Your task to perform on an android device: Empty the shopping cart on amazon. Search for "logitech g933" on amazon, select the first entry, add it to the cart, then select checkout. Image 0: 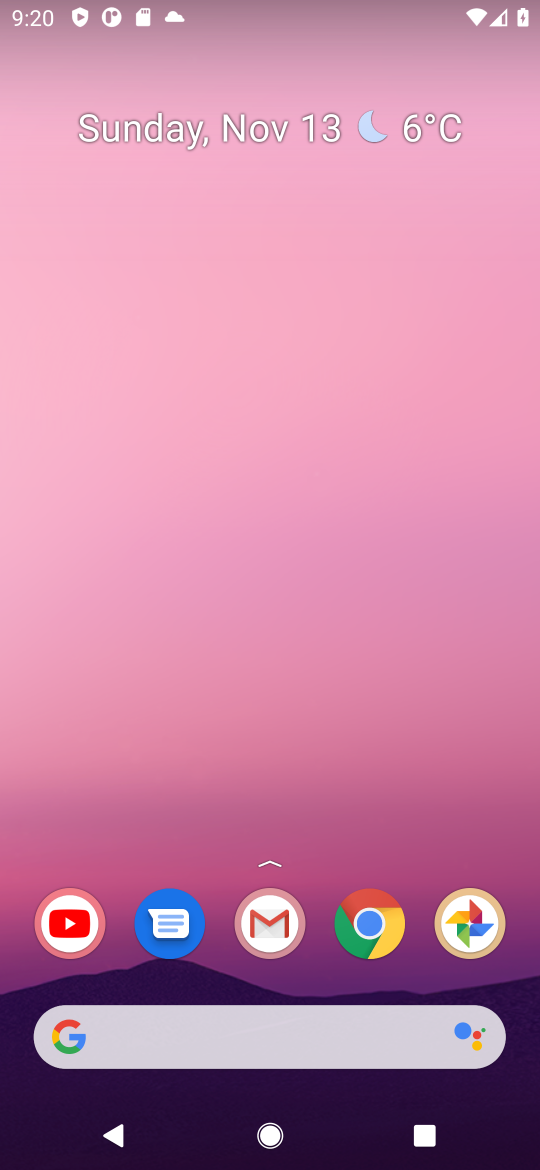
Step 0: click (375, 922)
Your task to perform on an android device: Empty the shopping cart on amazon. Search for "logitech g933" on amazon, select the first entry, add it to the cart, then select checkout. Image 1: 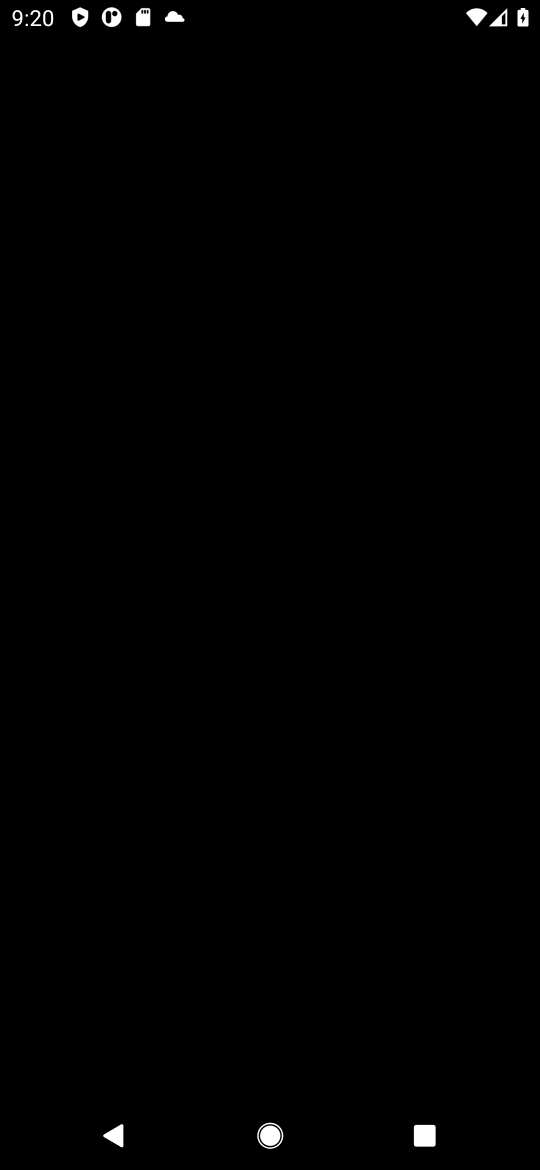
Step 1: click (373, 929)
Your task to perform on an android device: Empty the shopping cart on amazon. Search for "logitech g933" on amazon, select the first entry, add it to the cart, then select checkout. Image 2: 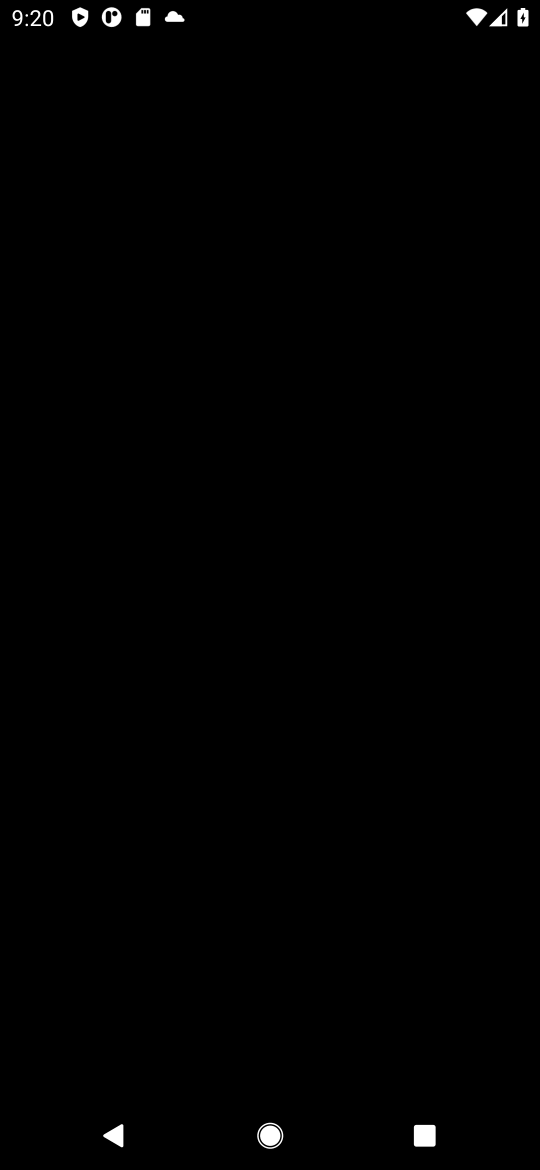
Step 2: press home button
Your task to perform on an android device: Empty the shopping cart on amazon. Search for "logitech g933" on amazon, select the first entry, add it to the cart, then select checkout. Image 3: 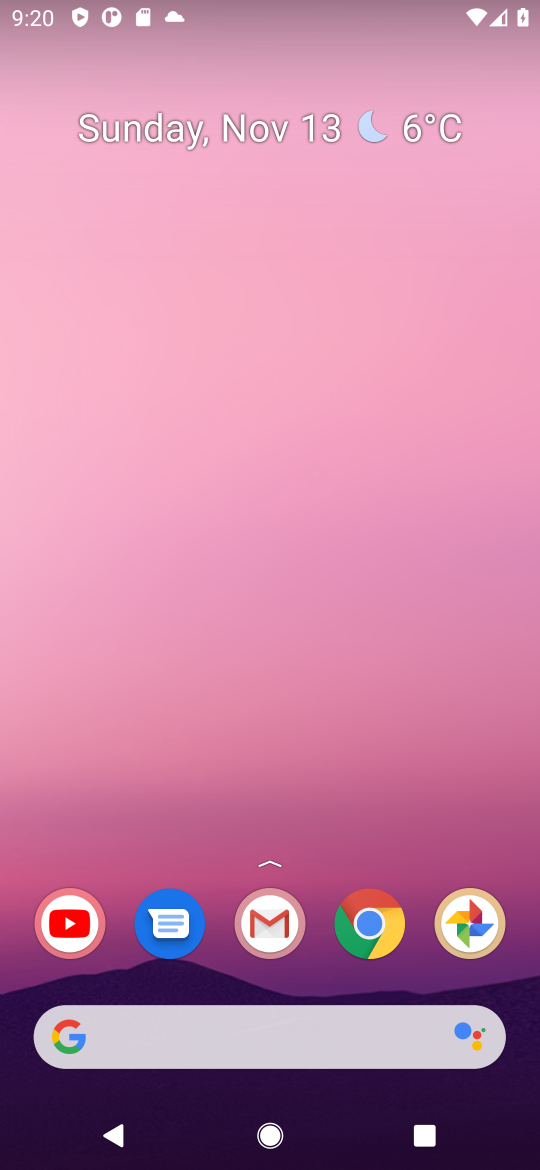
Step 3: click (391, 930)
Your task to perform on an android device: Empty the shopping cart on amazon. Search for "logitech g933" on amazon, select the first entry, add it to the cart, then select checkout. Image 4: 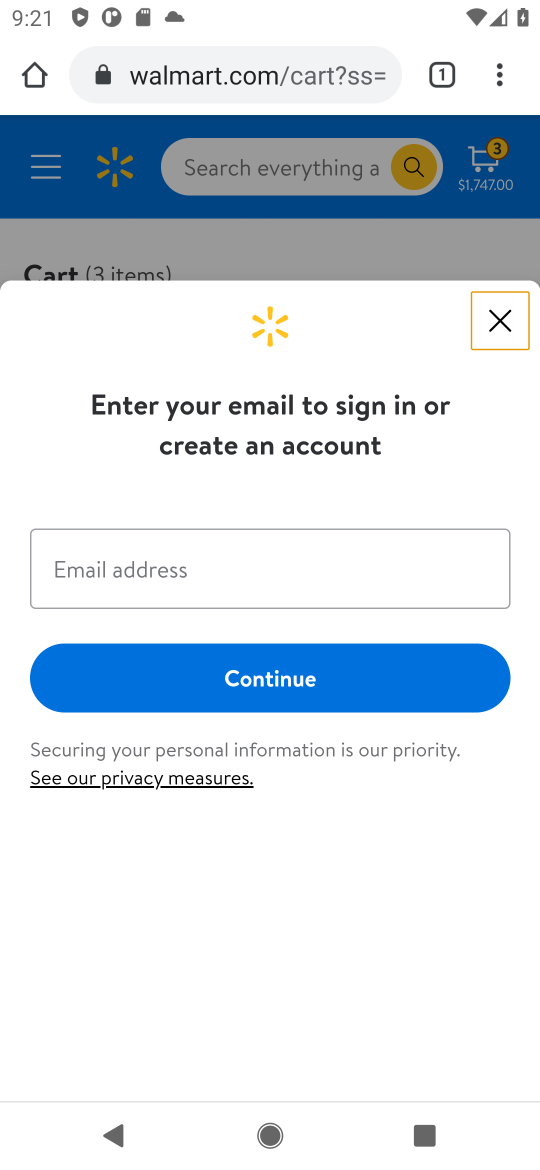
Step 4: click (506, 319)
Your task to perform on an android device: Empty the shopping cart on amazon. Search for "logitech g933" on amazon, select the first entry, add it to the cart, then select checkout. Image 5: 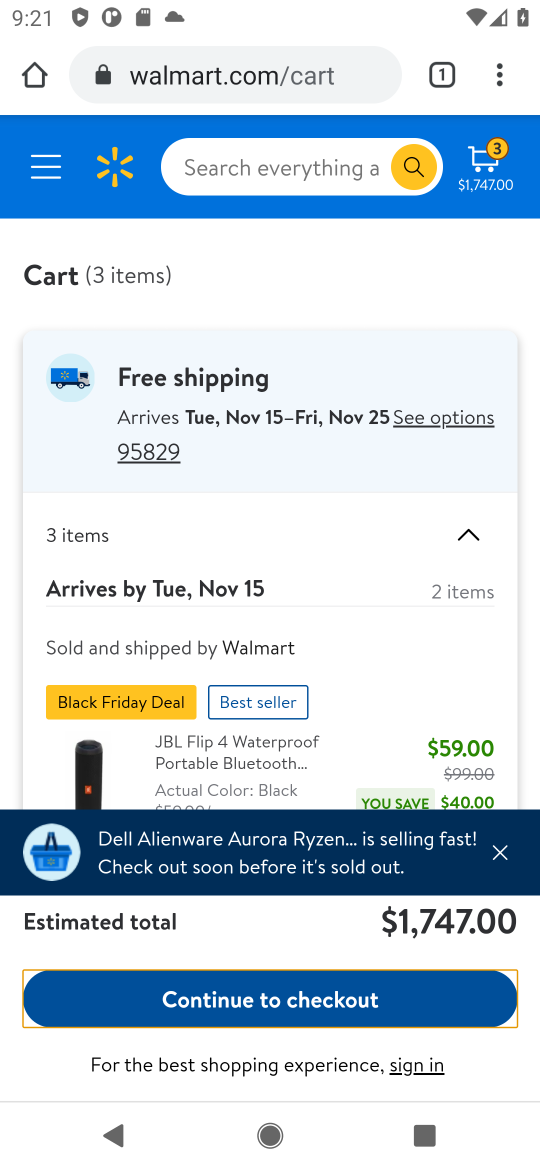
Step 5: click (239, 56)
Your task to perform on an android device: Empty the shopping cart on amazon. Search for "logitech g933" on amazon, select the first entry, add it to the cart, then select checkout. Image 6: 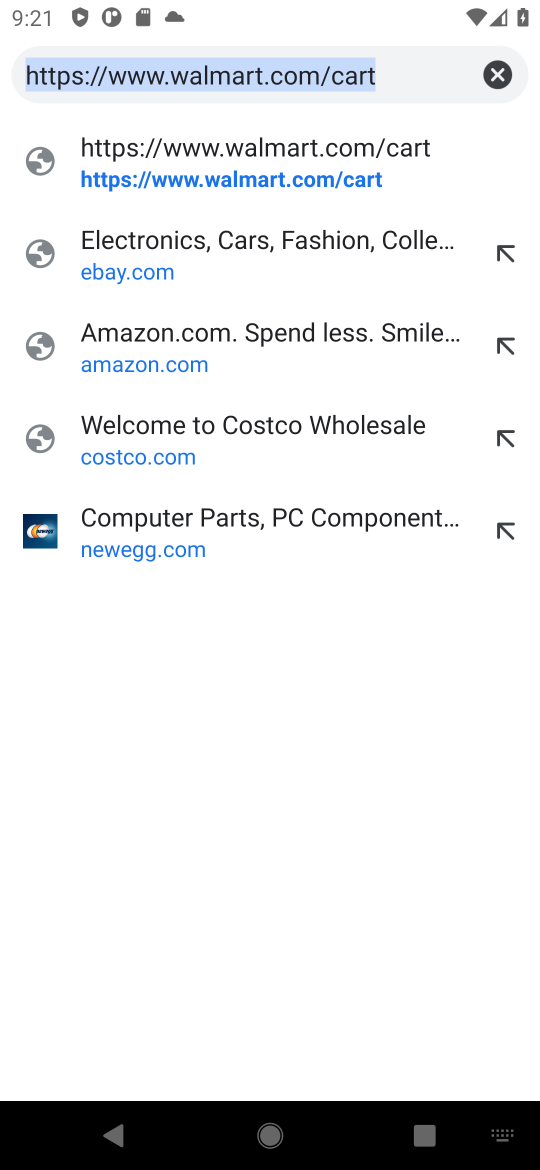
Step 6: click (239, 56)
Your task to perform on an android device: Empty the shopping cart on amazon. Search for "logitech g933" on amazon, select the first entry, add it to the cart, then select checkout. Image 7: 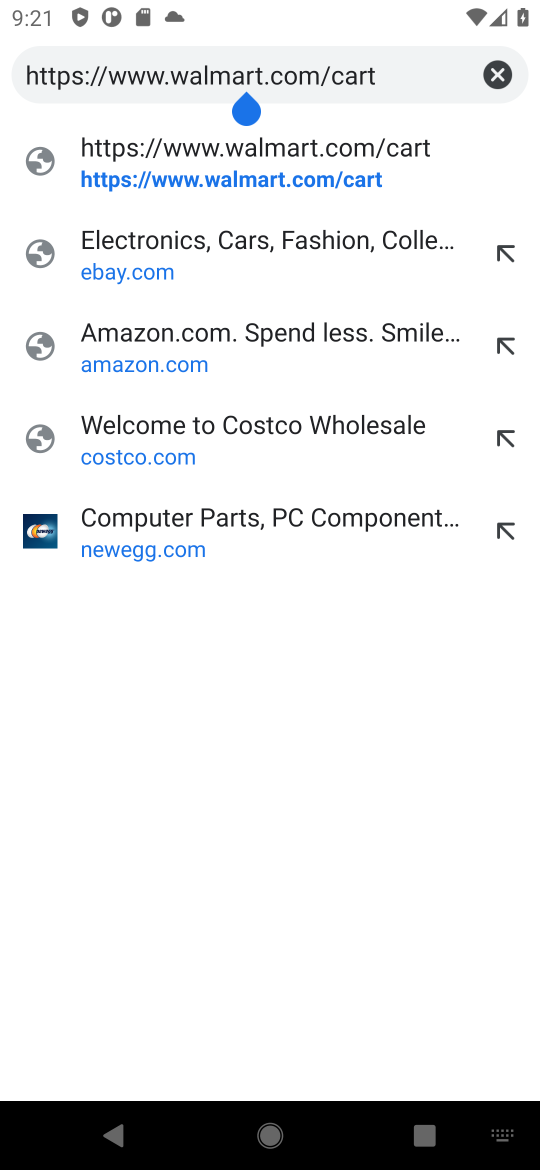
Step 7: click (219, 327)
Your task to perform on an android device: Empty the shopping cart on amazon. Search for "logitech g933" on amazon, select the first entry, add it to the cart, then select checkout. Image 8: 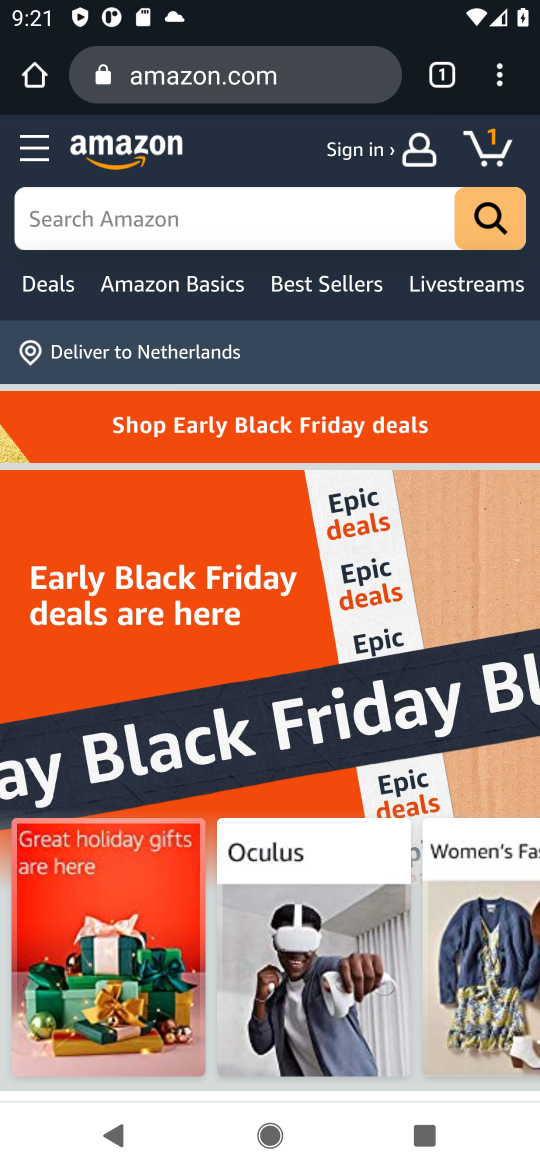
Step 8: click (486, 153)
Your task to perform on an android device: Empty the shopping cart on amazon. Search for "logitech g933" on amazon, select the first entry, add it to the cart, then select checkout. Image 9: 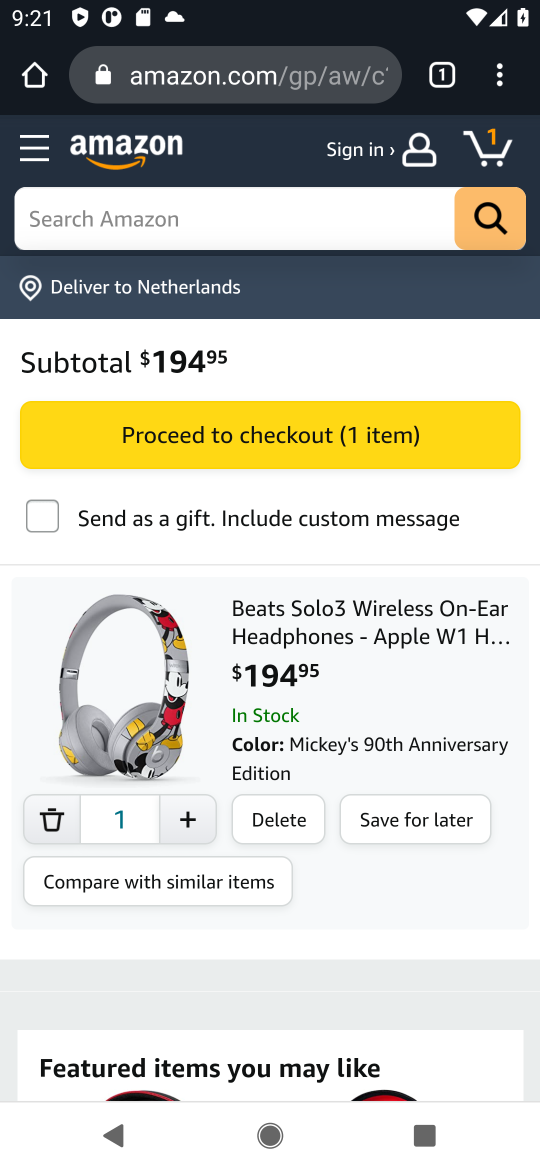
Step 9: click (283, 819)
Your task to perform on an android device: Empty the shopping cart on amazon. Search for "logitech g933" on amazon, select the first entry, add it to the cart, then select checkout. Image 10: 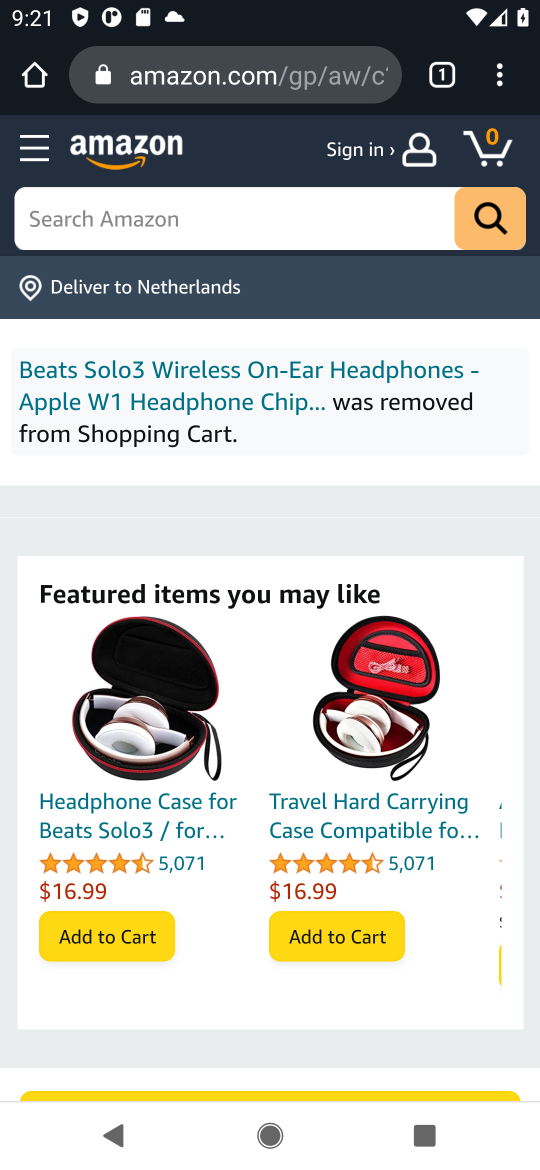
Step 10: click (328, 222)
Your task to perform on an android device: Empty the shopping cart on amazon. Search for "logitech g933" on amazon, select the first entry, add it to the cart, then select checkout. Image 11: 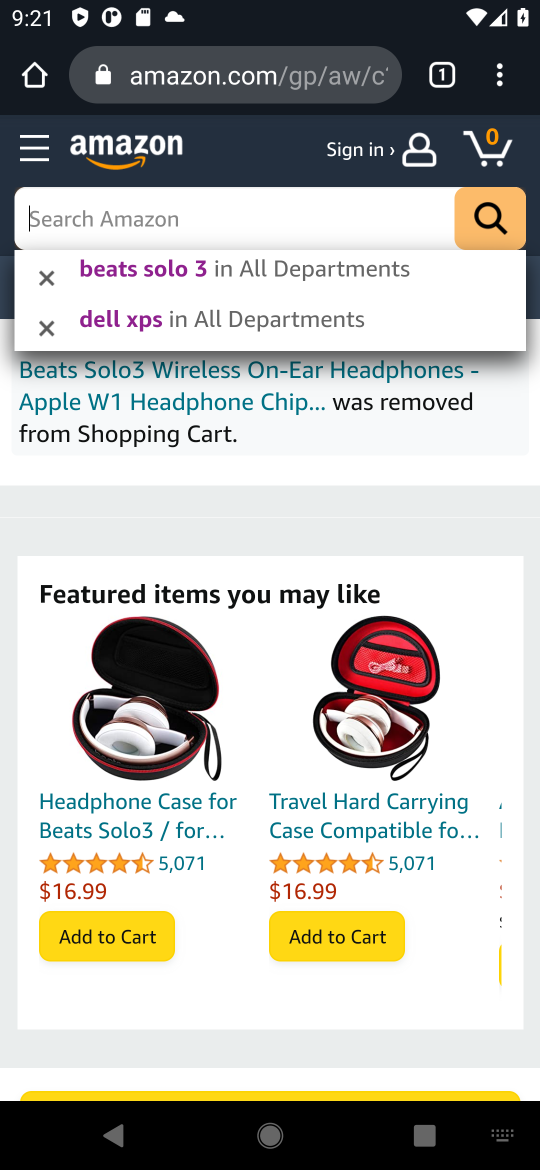
Step 11: press enter
Your task to perform on an android device: Empty the shopping cart on amazon. Search for "logitech g933" on amazon, select the first entry, add it to the cart, then select checkout. Image 12: 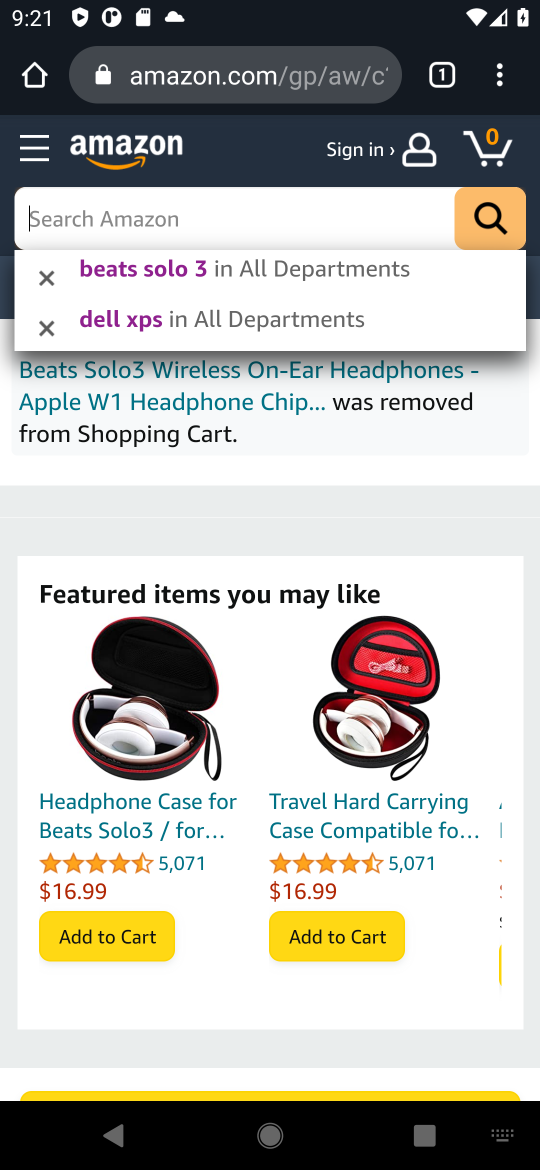
Step 12: type "logitech g933"
Your task to perform on an android device: Empty the shopping cart on amazon. Search for "logitech g933" on amazon, select the first entry, add it to the cart, then select checkout. Image 13: 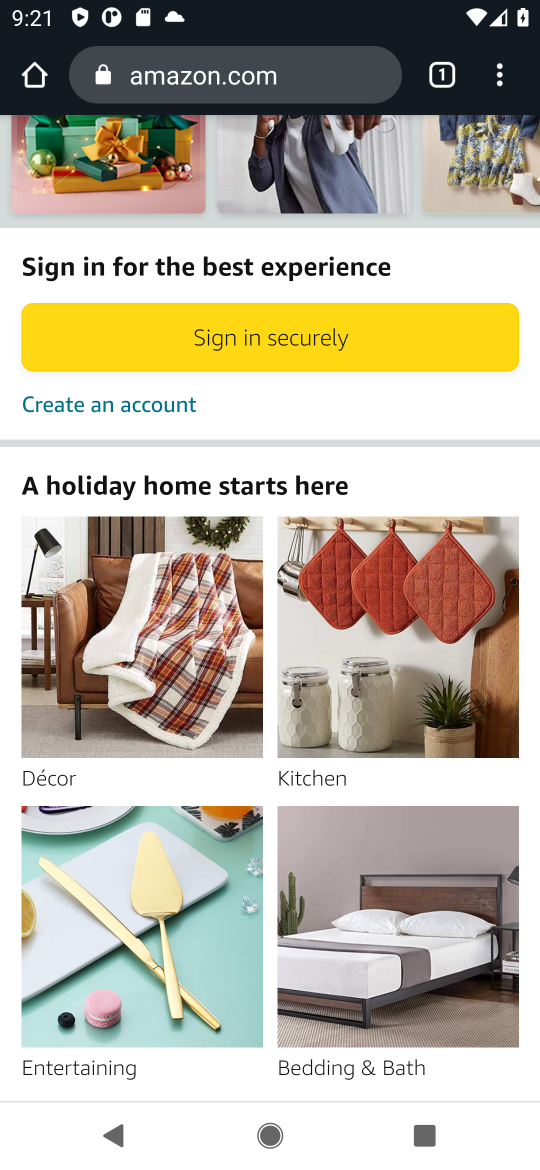
Step 13: drag from (296, 313) to (375, 951)
Your task to perform on an android device: Empty the shopping cart on amazon. Search for "logitech g933" on amazon, select the first entry, add it to the cart, then select checkout. Image 14: 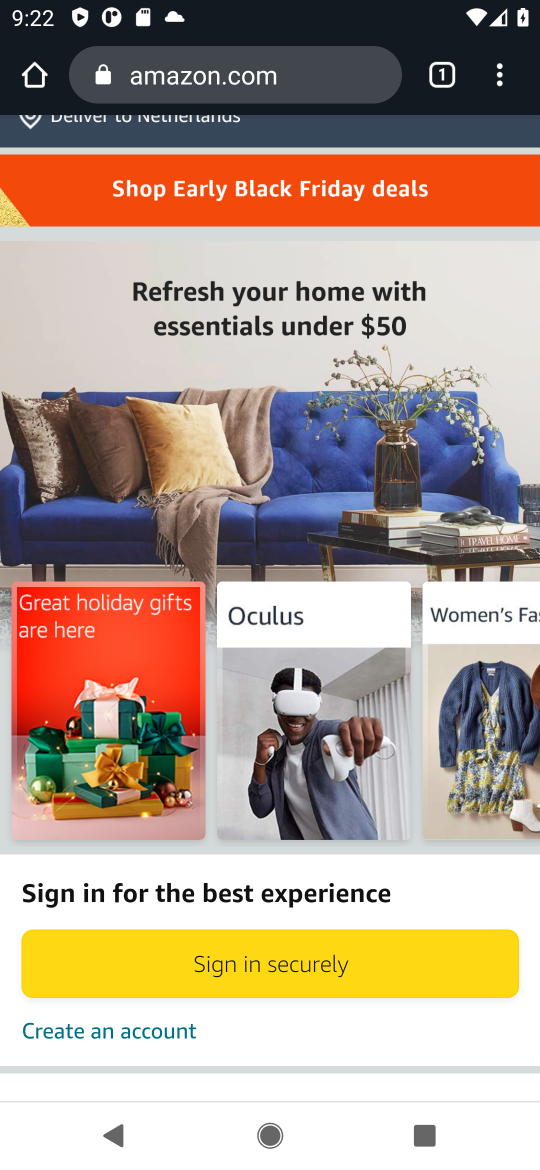
Step 14: click (372, 987)
Your task to perform on an android device: Empty the shopping cart on amazon. Search for "logitech g933" on amazon, select the first entry, add it to the cart, then select checkout. Image 15: 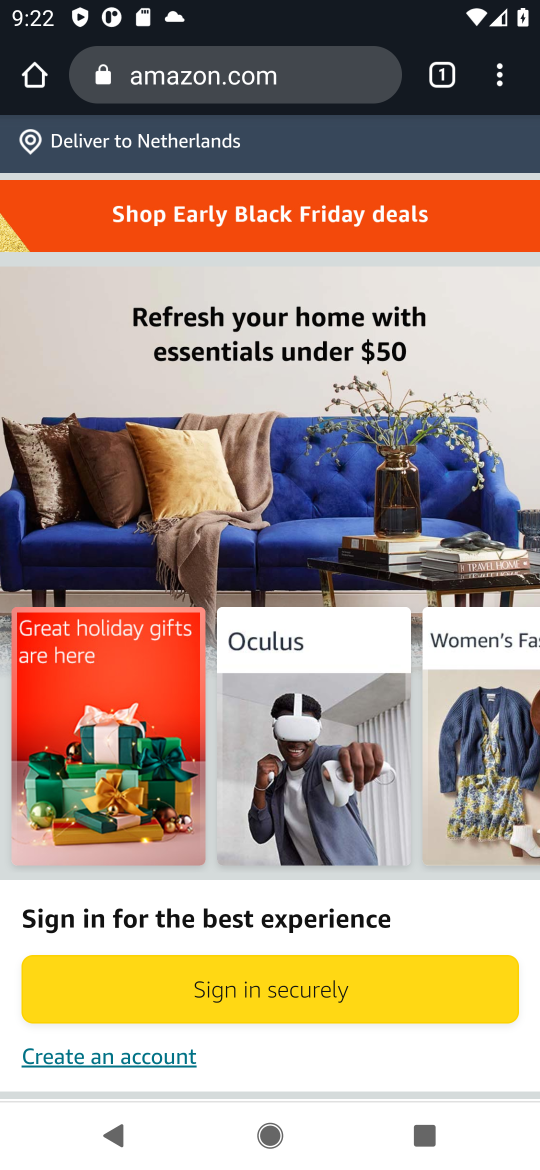
Step 15: drag from (333, 900) to (328, 970)
Your task to perform on an android device: Empty the shopping cart on amazon. Search for "logitech g933" on amazon, select the first entry, add it to the cart, then select checkout. Image 16: 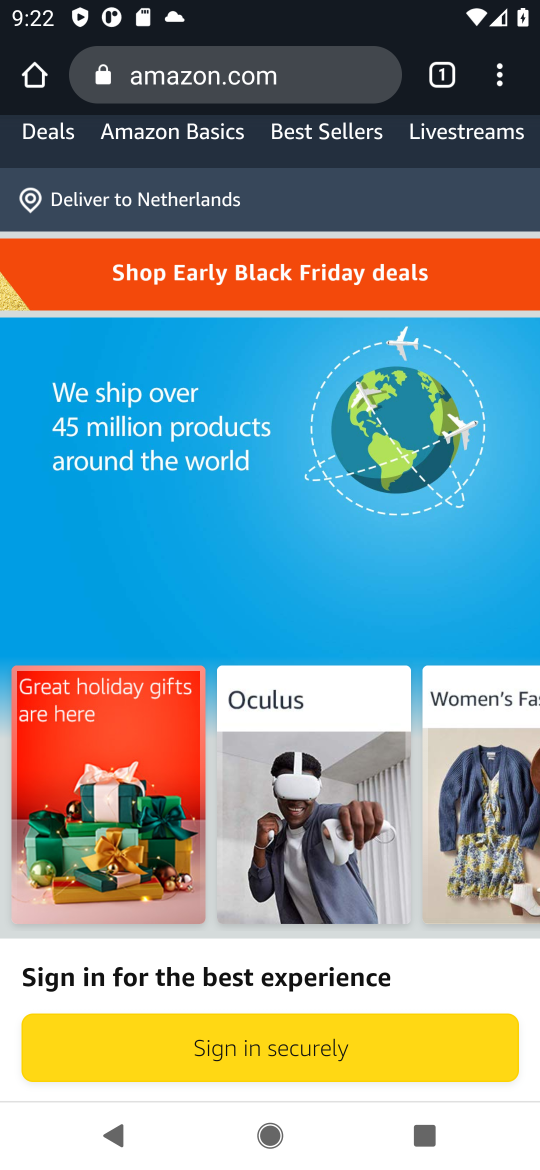
Step 16: press back button
Your task to perform on an android device: Empty the shopping cart on amazon. Search for "logitech g933" on amazon, select the first entry, add it to the cart, then select checkout. Image 17: 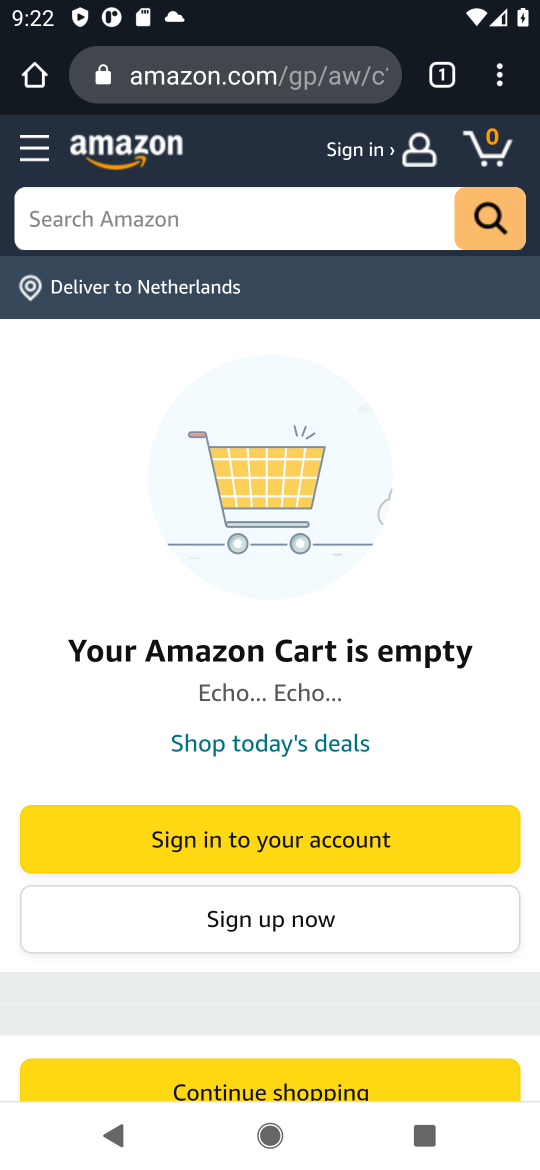
Step 17: click (307, 226)
Your task to perform on an android device: Empty the shopping cart on amazon. Search for "logitech g933" on amazon, select the first entry, add it to the cart, then select checkout. Image 18: 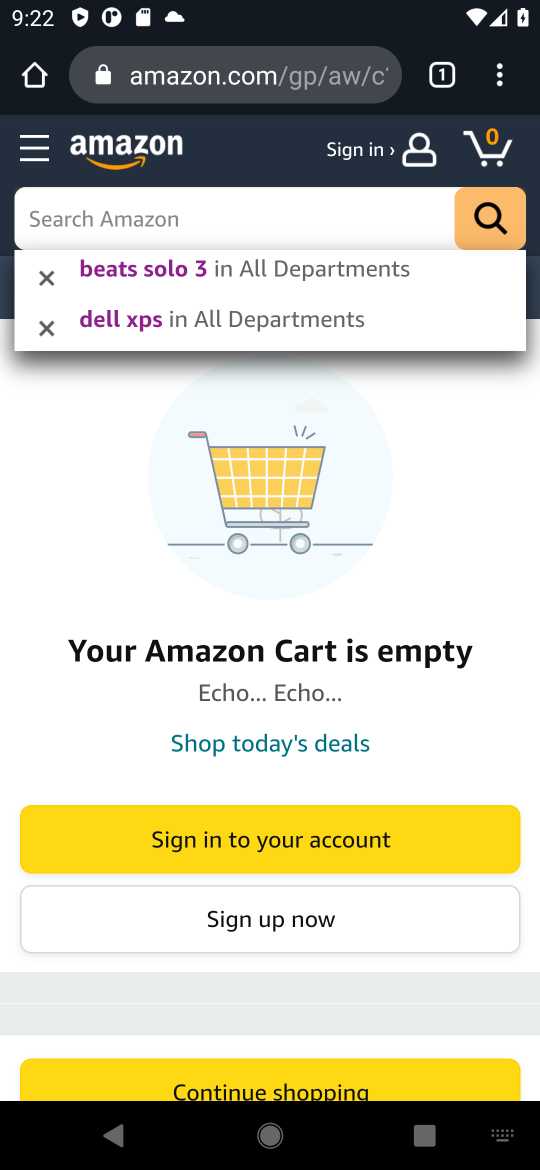
Step 18: press enter
Your task to perform on an android device: Empty the shopping cart on amazon. Search for "logitech g933" on amazon, select the first entry, add it to the cart, then select checkout. Image 19: 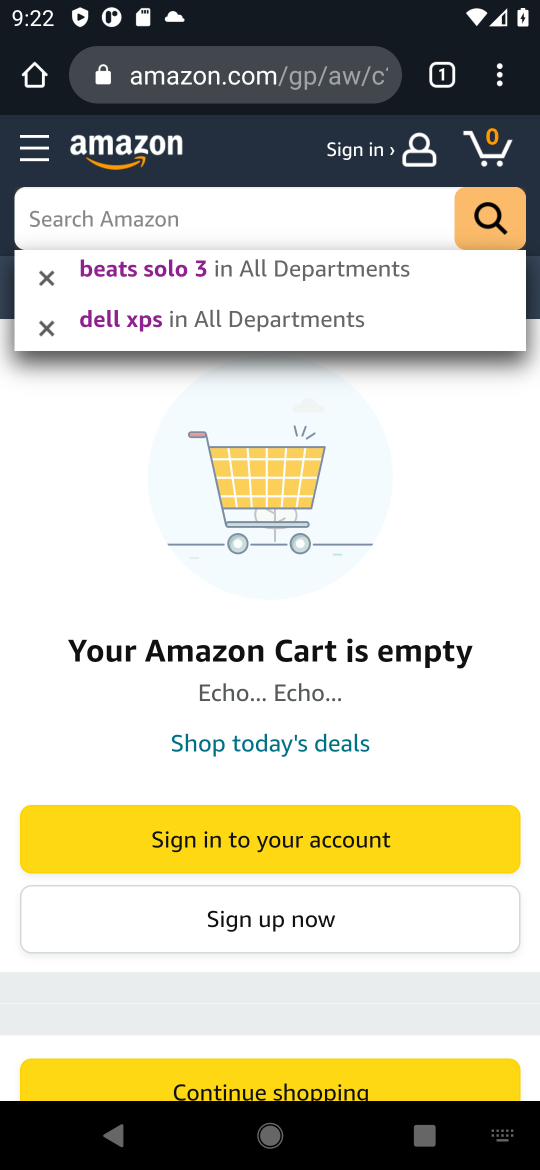
Step 19: type "logitech g933"
Your task to perform on an android device: Empty the shopping cart on amazon. Search for "logitech g933" on amazon, select the first entry, add it to the cart, then select checkout. Image 20: 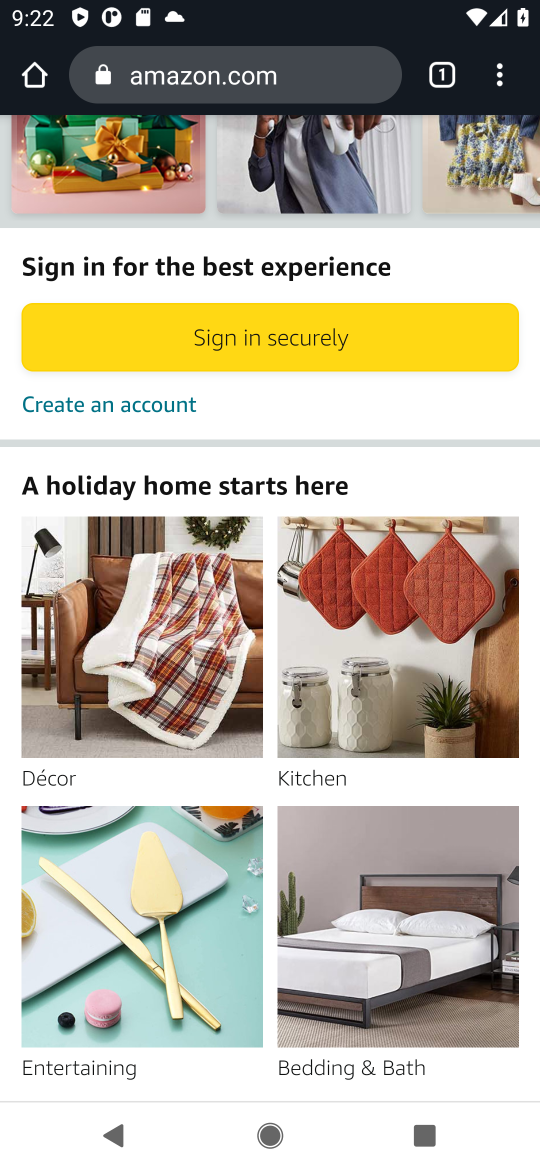
Step 20: task complete